Your task to perform on an android device: add a contact Image 0: 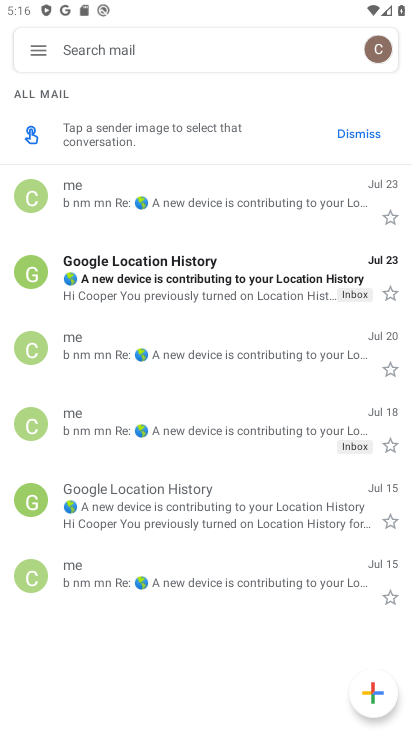
Step 0: press home button
Your task to perform on an android device: add a contact Image 1: 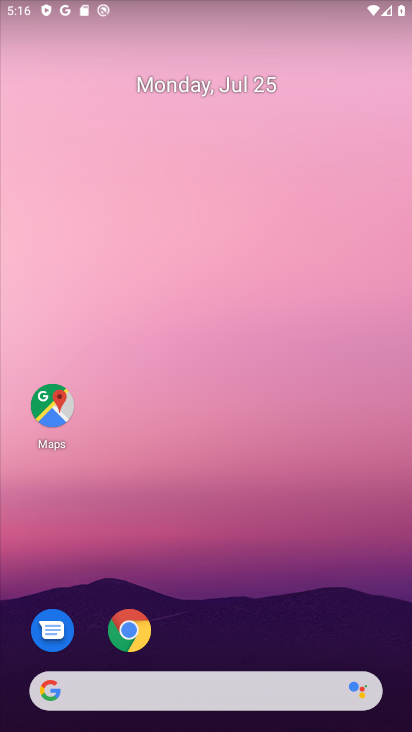
Step 1: drag from (213, 635) to (220, 4)
Your task to perform on an android device: add a contact Image 2: 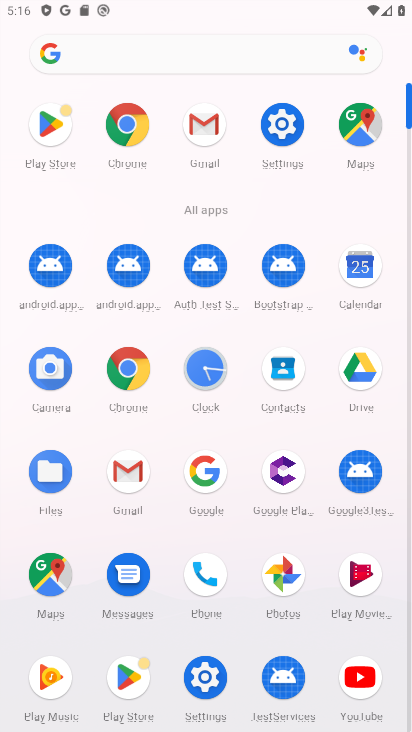
Step 2: click (282, 367)
Your task to perform on an android device: add a contact Image 3: 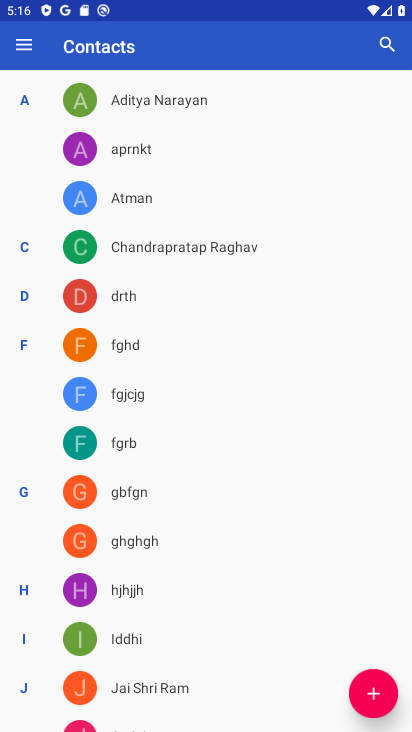
Step 3: click (368, 688)
Your task to perform on an android device: add a contact Image 4: 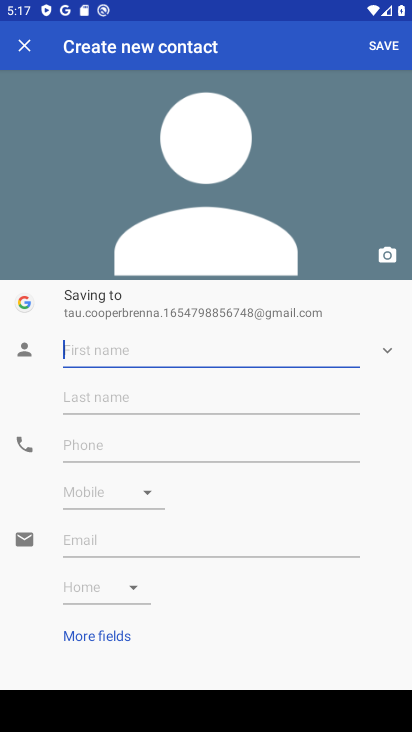
Step 4: type "fhcgjnf"
Your task to perform on an android device: add a contact Image 5: 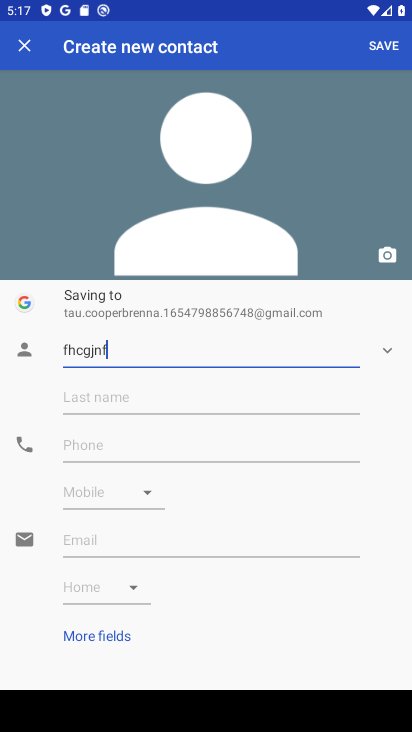
Step 5: type ""
Your task to perform on an android device: add a contact Image 6: 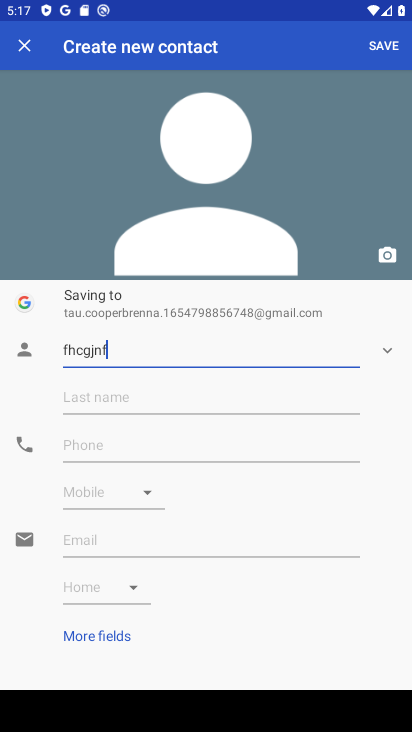
Step 6: click (377, 47)
Your task to perform on an android device: add a contact Image 7: 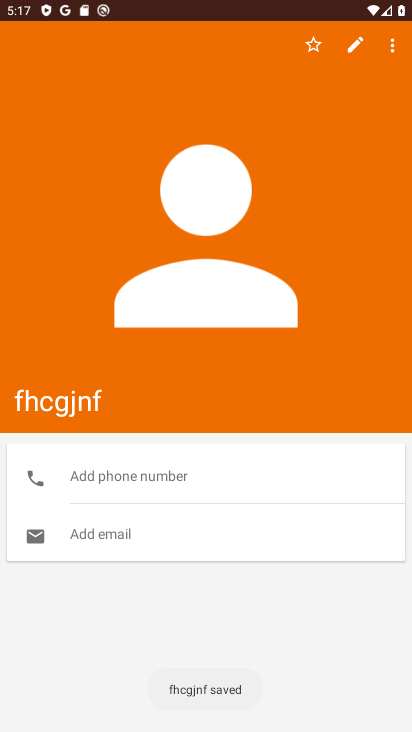
Step 7: task complete